Your task to perform on an android device: Go to Reddit.com Image 0: 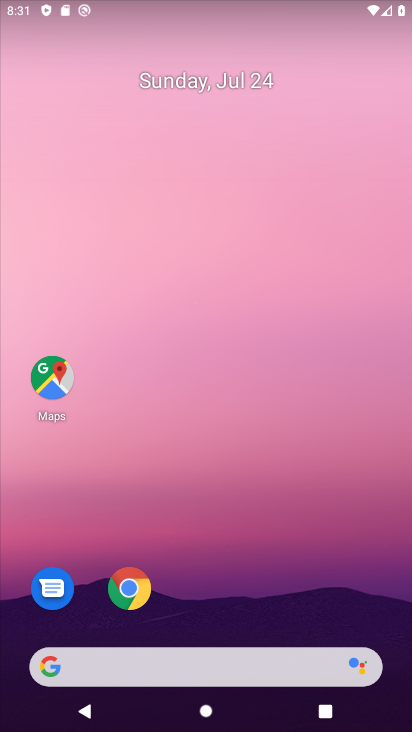
Step 0: click (131, 570)
Your task to perform on an android device: Go to Reddit.com Image 1: 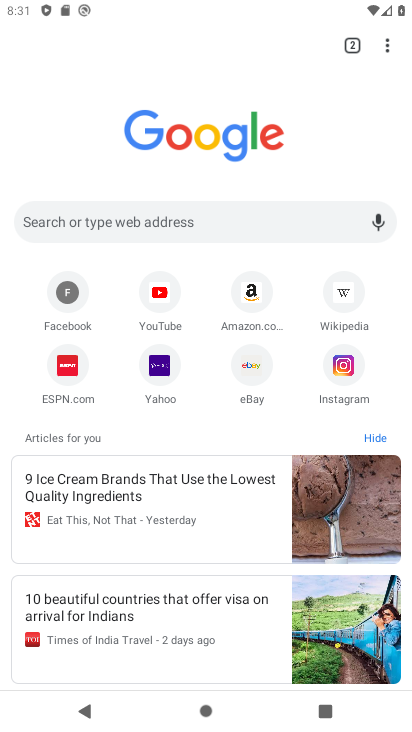
Step 1: click (166, 221)
Your task to perform on an android device: Go to Reddit.com Image 2: 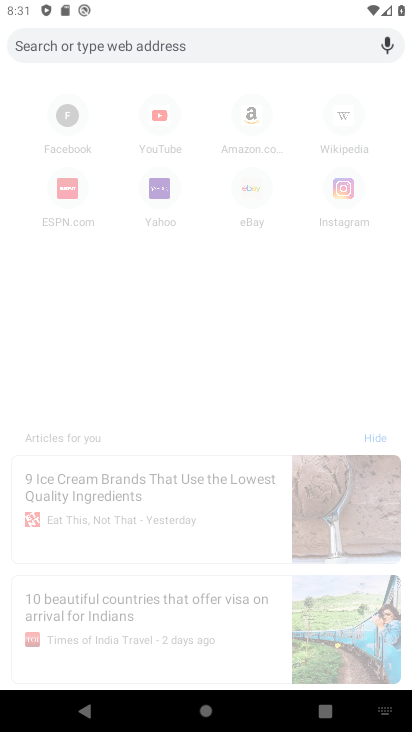
Step 2: type "Reddit.com"
Your task to perform on an android device: Go to Reddit.com Image 3: 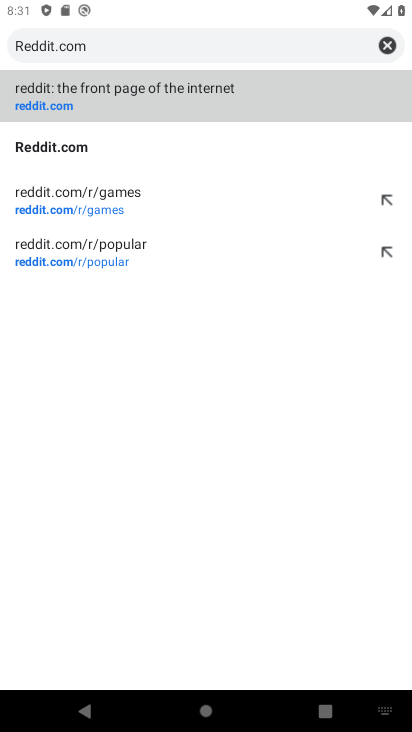
Step 3: click (216, 83)
Your task to perform on an android device: Go to Reddit.com Image 4: 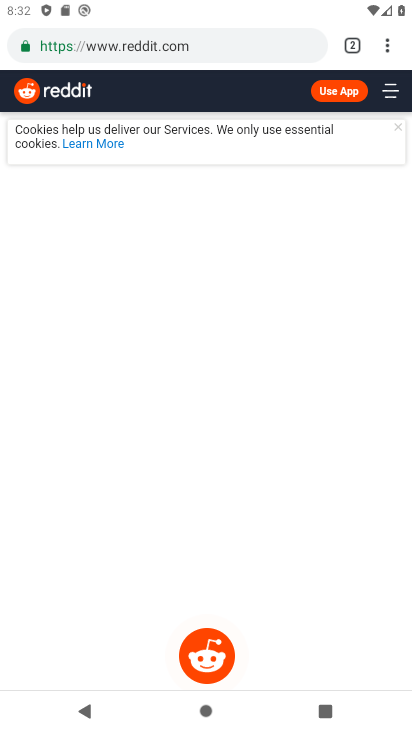
Step 4: task complete